Your task to perform on an android device: Check the news Image 0: 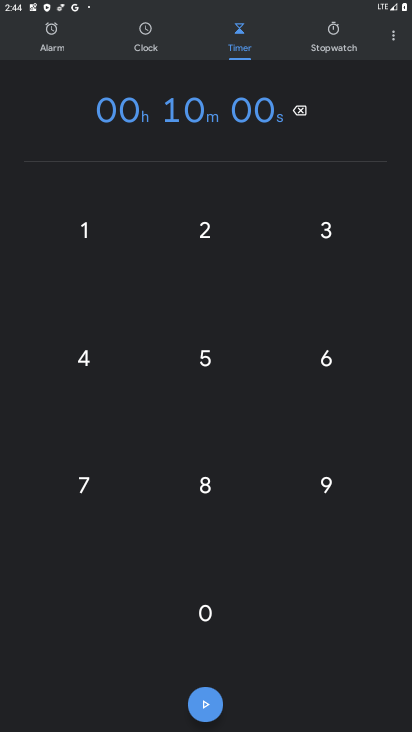
Step 0: press home button
Your task to perform on an android device: Check the news Image 1: 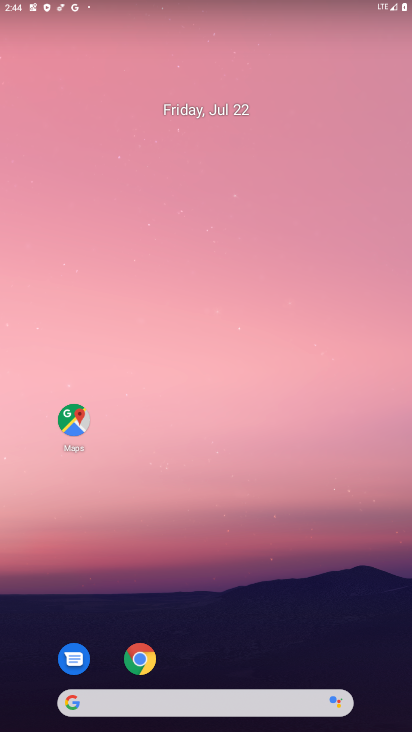
Step 1: drag from (189, 652) to (188, 175)
Your task to perform on an android device: Check the news Image 2: 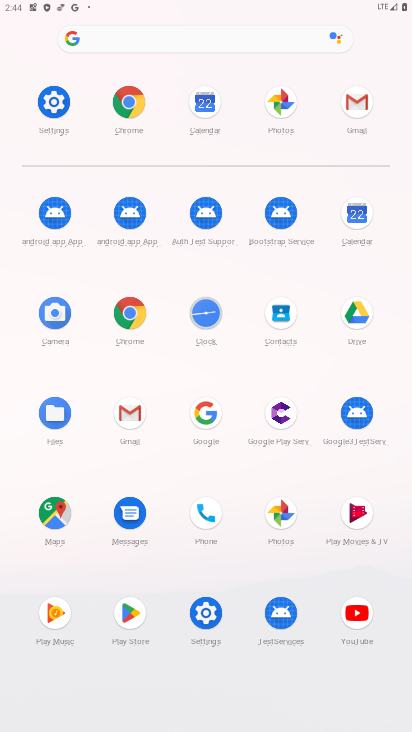
Step 2: click (203, 427)
Your task to perform on an android device: Check the news Image 3: 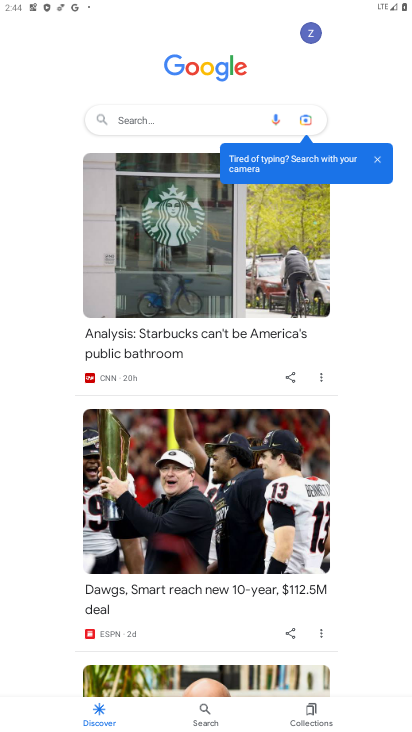
Step 3: click (146, 121)
Your task to perform on an android device: Check the news Image 4: 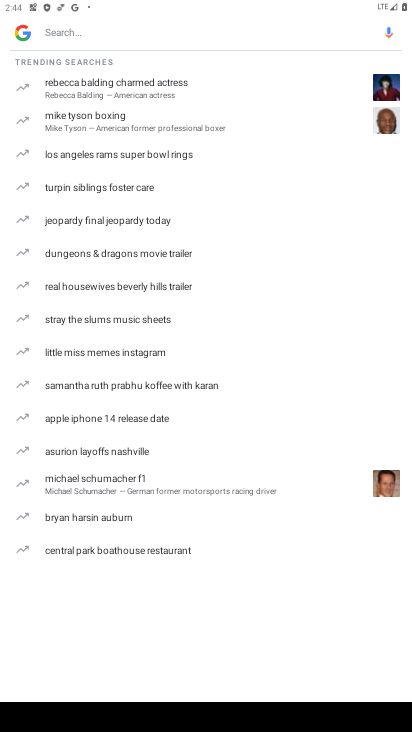
Step 4: type "news"
Your task to perform on an android device: Check the news Image 5: 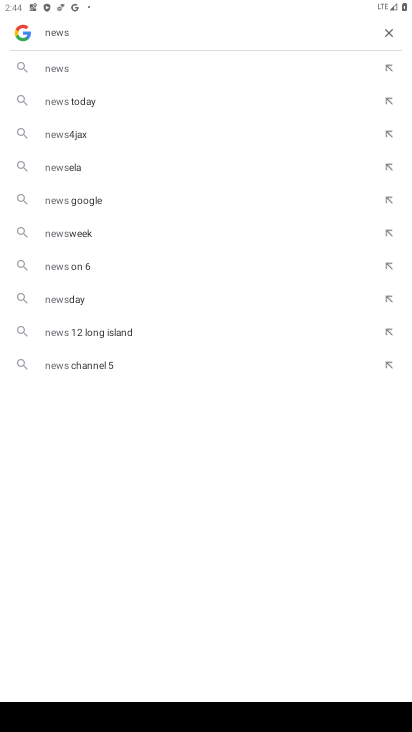
Step 5: click (47, 68)
Your task to perform on an android device: Check the news Image 6: 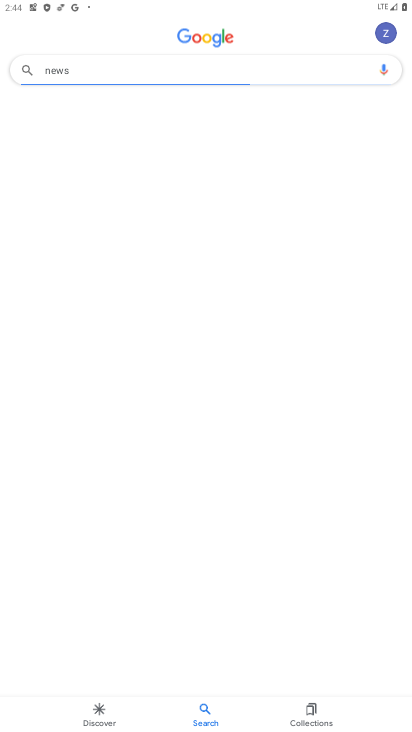
Step 6: task complete